Your task to perform on an android device: turn on airplane mode Image 0: 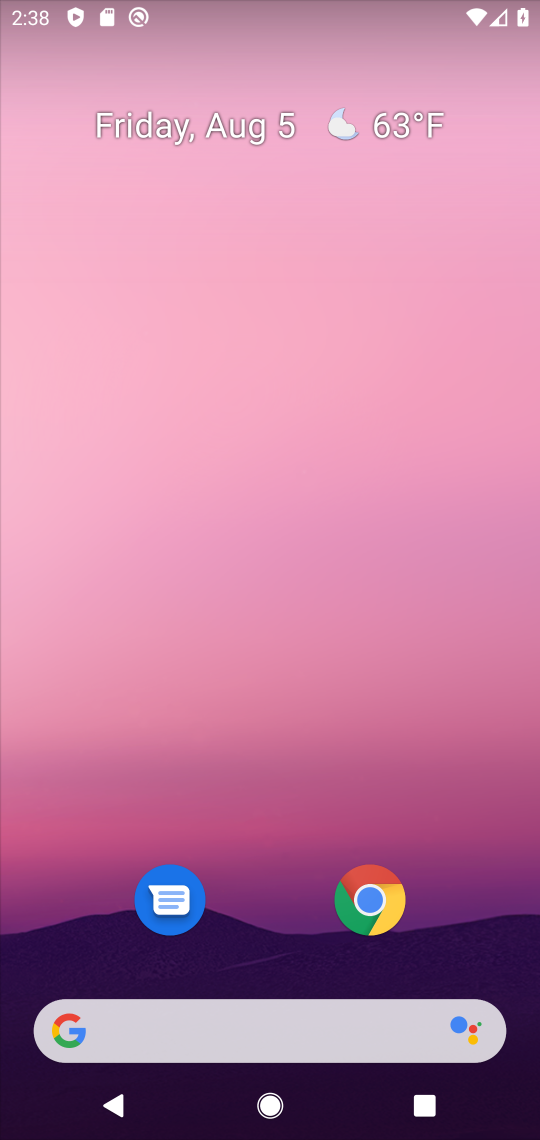
Step 0: drag from (260, 980) to (208, 31)
Your task to perform on an android device: turn on airplane mode Image 1: 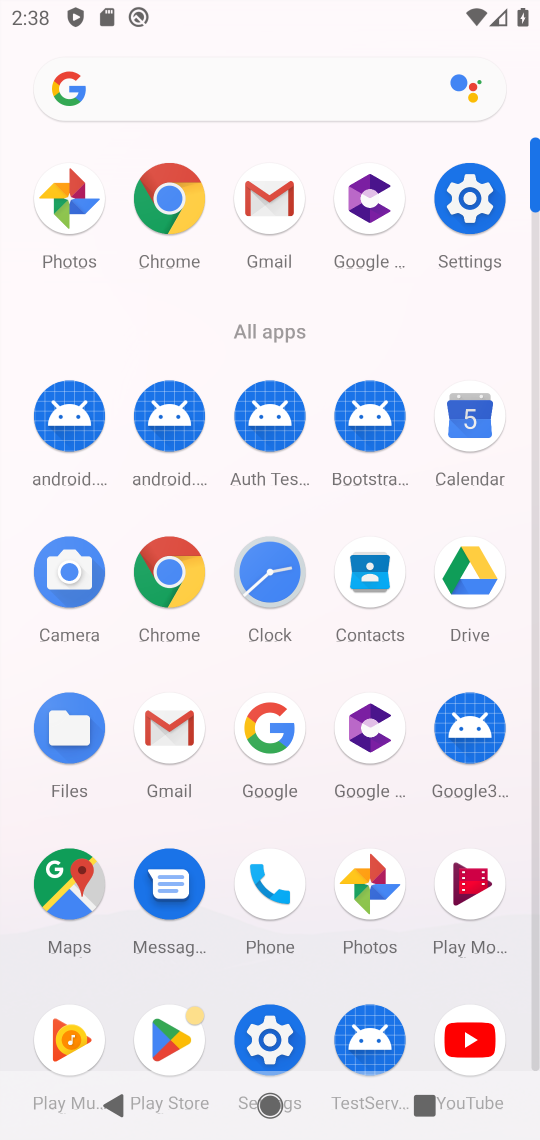
Step 1: click (458, 233)
Your task to perform on an android device: turn on airplane mode Image 2: 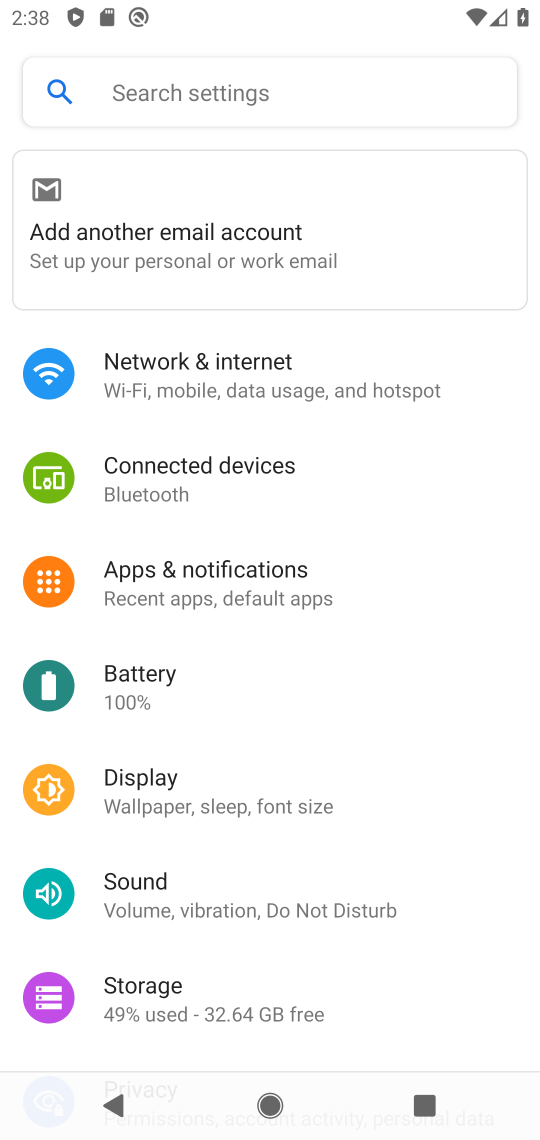
Step 2: click (255, 233)
Your task to perform on an android device: turn on airplane mode Image 3: 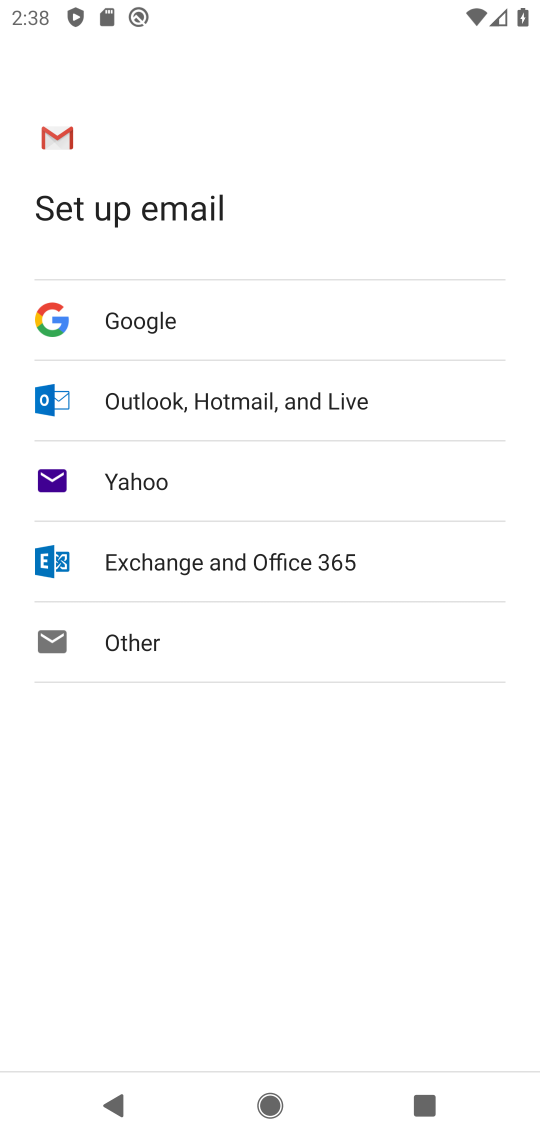
Step 3: task complete